Your task to perform on an android device: Go to notification settings Image 0: 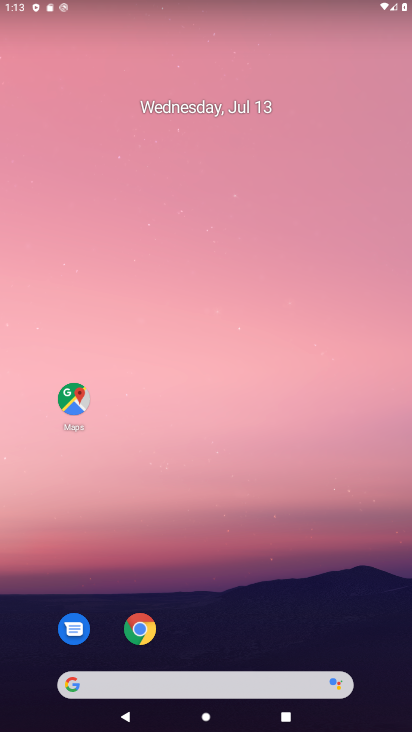
Step 0: drag from (234, 635) to (222, 87)
Your task to perform on an android device: Go to notification settings Image 1: 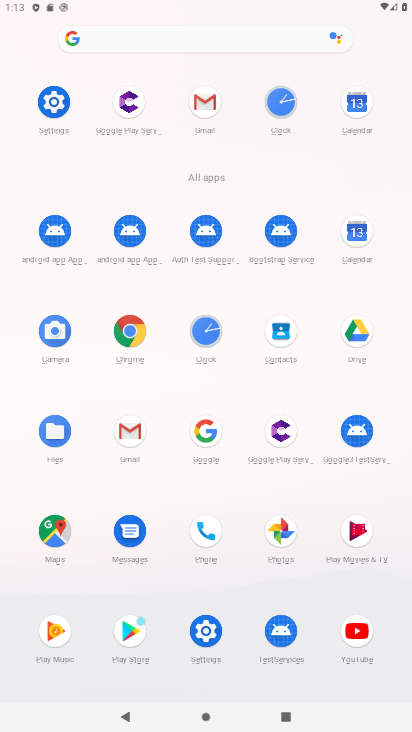
Step 1: click (51, 105)
Your task to perform on an android device: Go to notification settings Image 2: 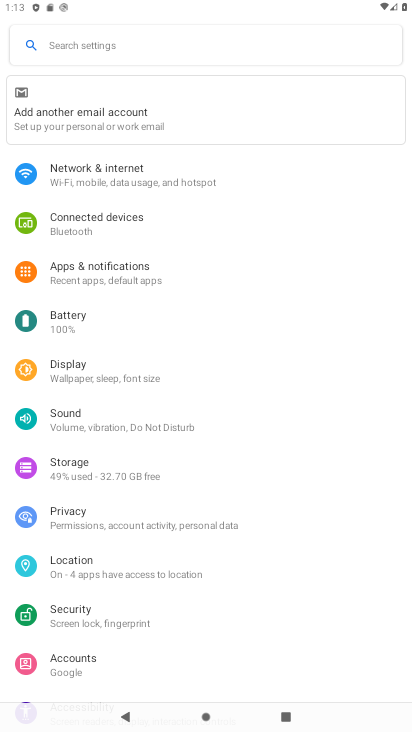
Step 2: click (195, 294)
Your task to perform on an android device: Go to notification settings Image 3: 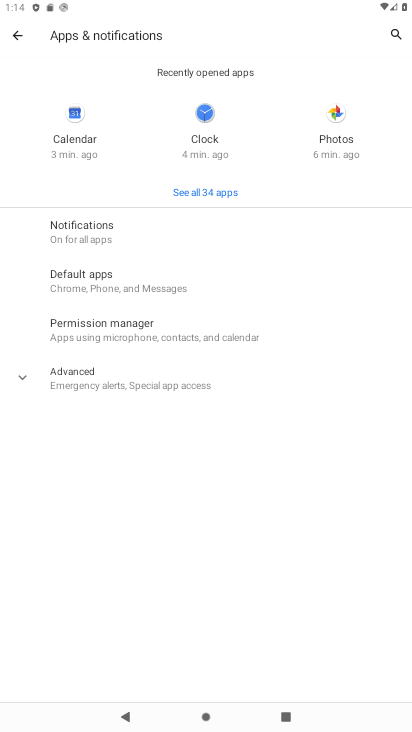
Step 3: click (93, 241)
Your task to perform on an android device: Go to notification settings Image 4: 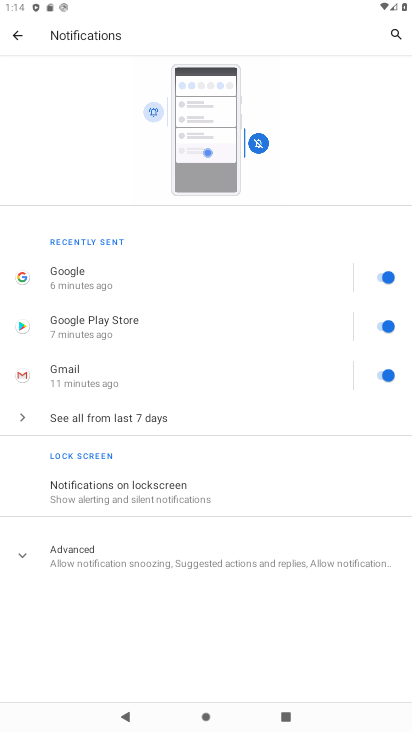
Step 4: task complete